Your task to perform on an android device: all mails in gmail Image 0: 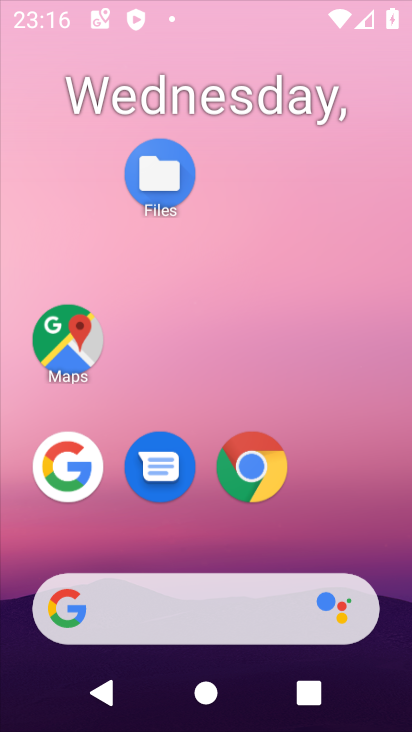
Step 0: click (77, 350)
Your task to perform on an android device: all mails in gmail Image 1: 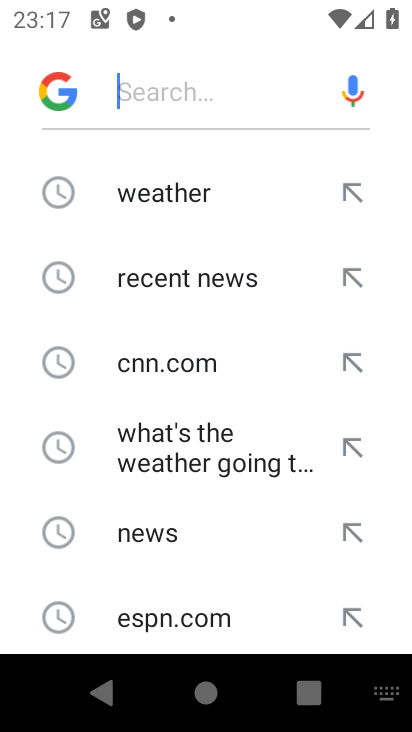
Step 1: press back button
Your task to perform on an android device: all mails in gmail Image 2: 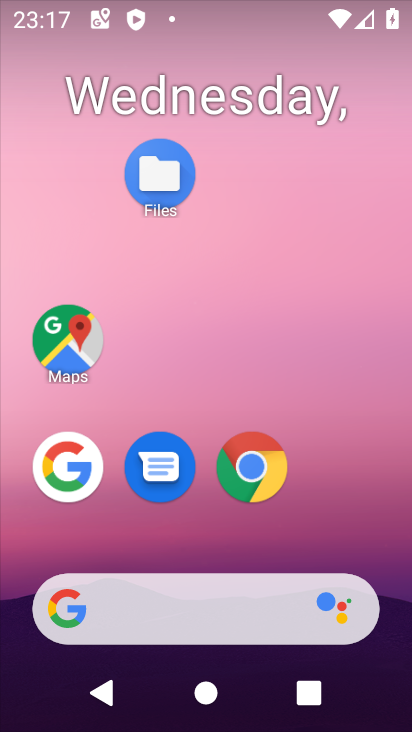
Step 2: drag from (178, 530) to (411, 234)
Your task to perform on an android device: all mails in gmail Image 3: 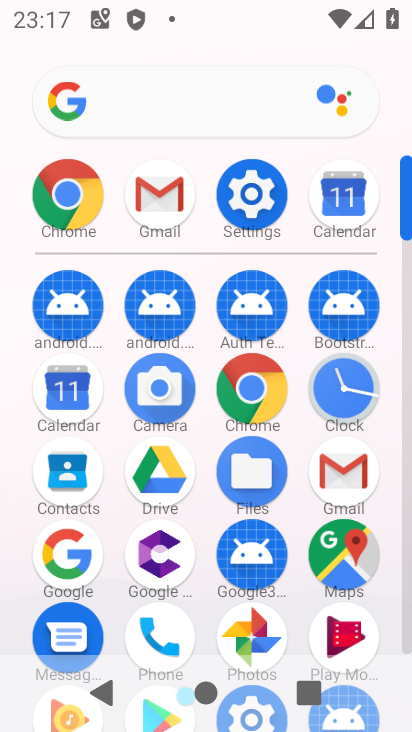
Step 3: click (358, 497)
Your task to perform on an android device: all mails in gmail Image 4: 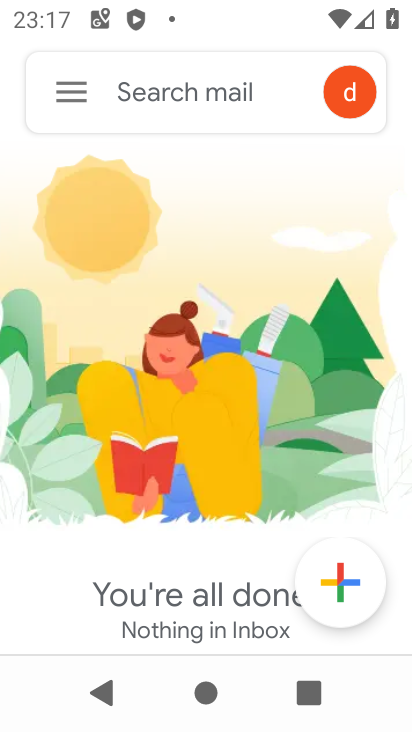
Step 4: click (72, 77)
Your task to perform on an android device: all mails in gmail Image 5: 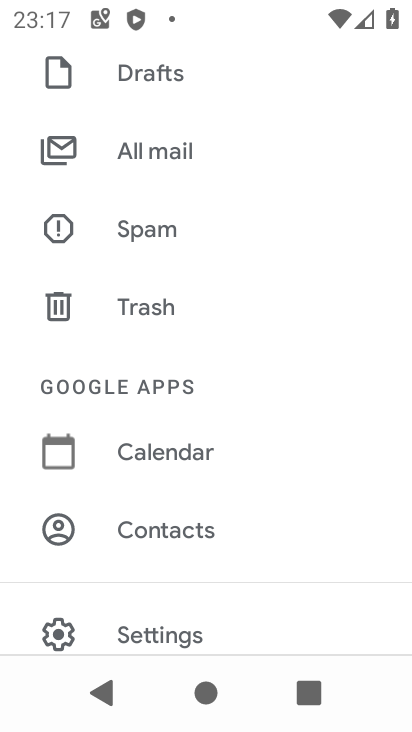
Step 5: click (148, 166)
Your task to perform on an android device: all mails in gmail Image 6: 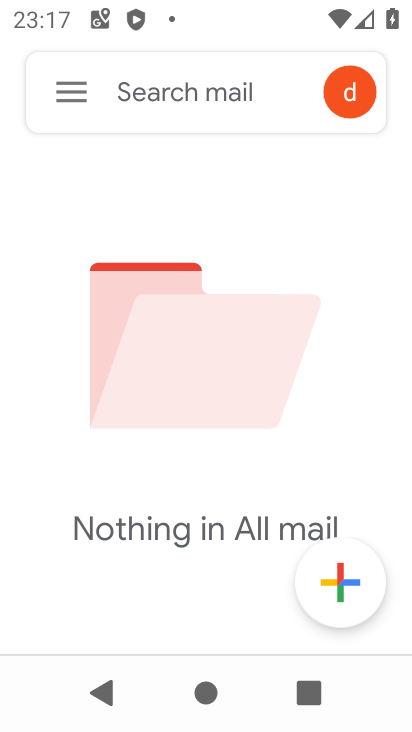
Step 6: click (148, 166)
Your task to perform on an android device: all mails in gmail Image 7: 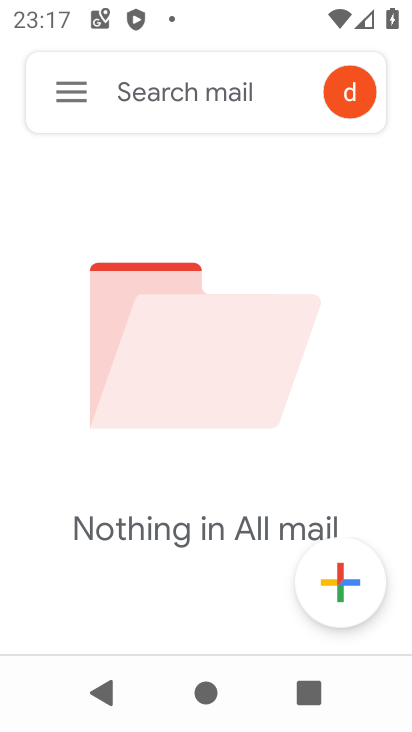
Step 7: task complete